Your task to perform on an android device: Open Google Chrome Image 0: 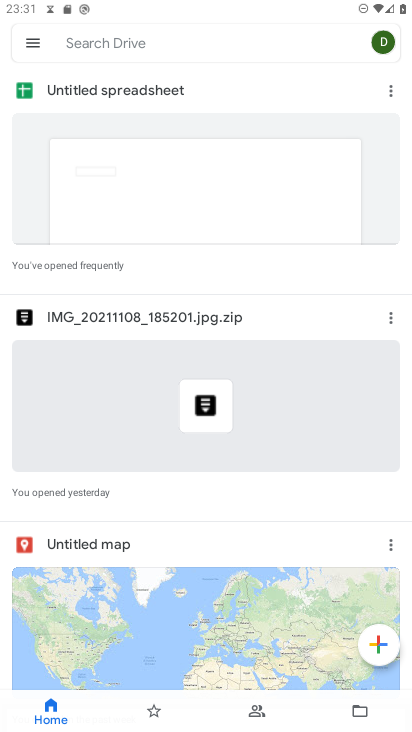
Step 0: press home button
Your task to perform on an android device: Open Google Chrome Image 1: 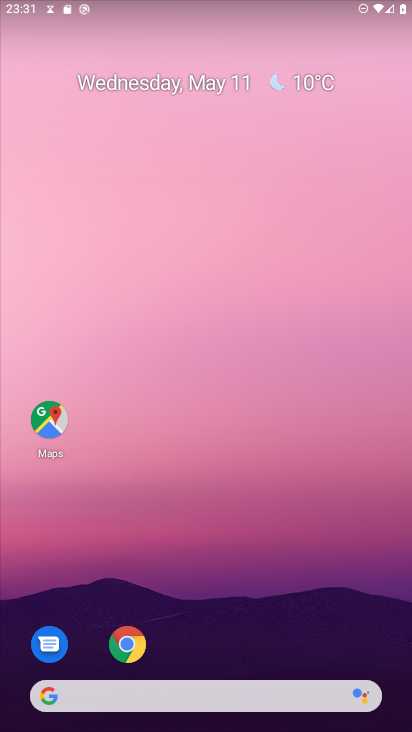
Step 1: click (138, 655)
Your task to perform on an android device: Open Google Chrome Image 2: 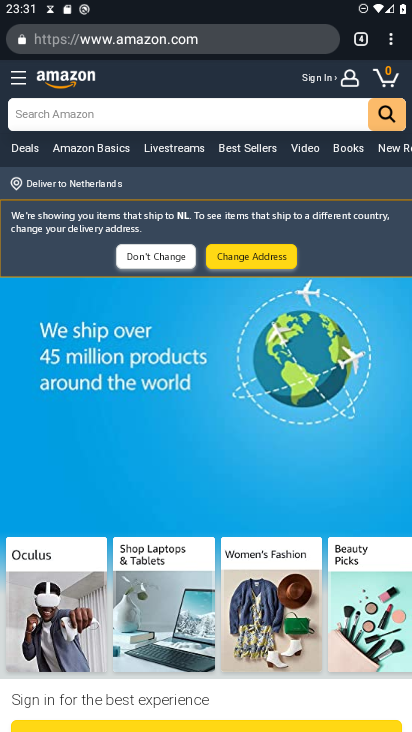
Step 2: task complete